Your task to perform on an android device: Open the calendar app, open the side menu, and click the "Day" option Image 0: 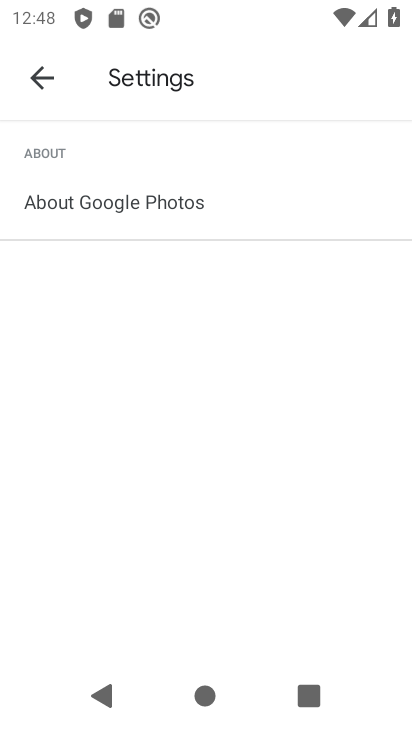
Step 0: press home button
Your task to perform on an android device: Open the calendar app, open the side menu, and click the "Day" option Image 1: 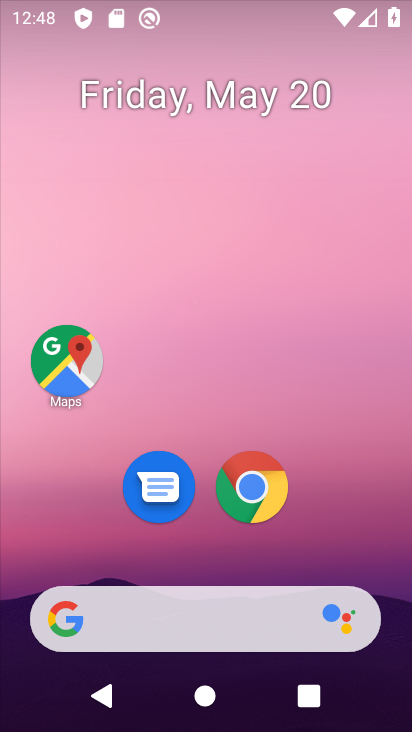
Step 1: drag from (335, 501) to (318, 147)
Your task to perform on an android device: Open the calendar app, open the side menu, and click the "Day" option Image 2: 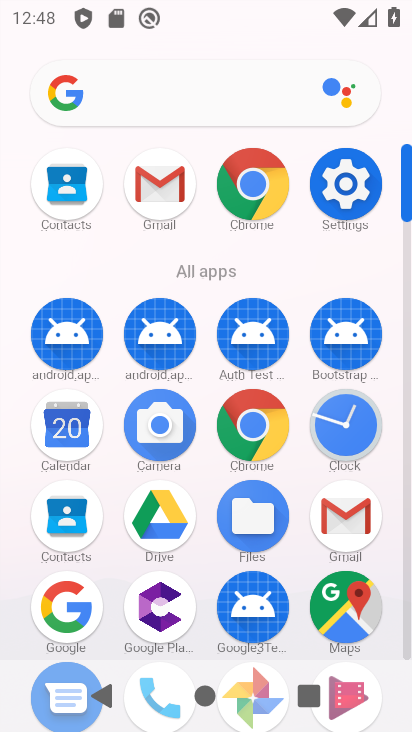
Step 2: click (81, 418)
Your task to perform on an android device: Open the calendar app, open the side menu, and click the "Day" option Image 3: 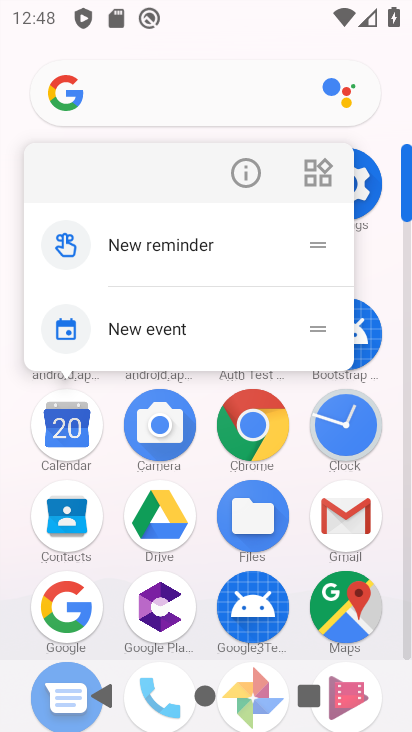
Step 3: click (80, 423)
Your task to perform on an android device: Open the calendar app, open the side menu, and click the "Day" option Image 4: 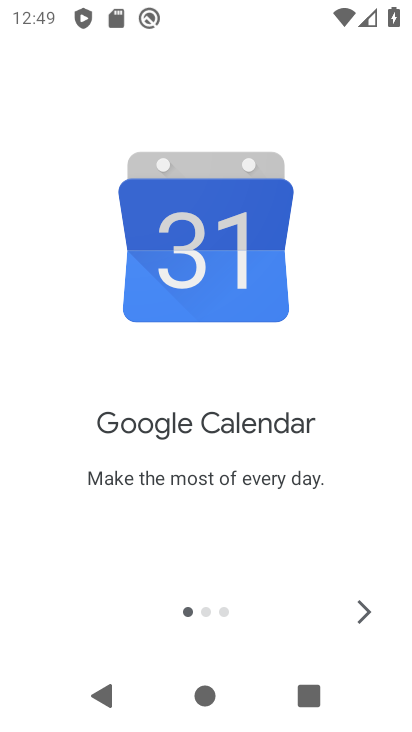
Step 4: click (365, 605)
Your task to perform on an android device: Open the calendar app, open the side menu, and click the "Day" option Image 5: 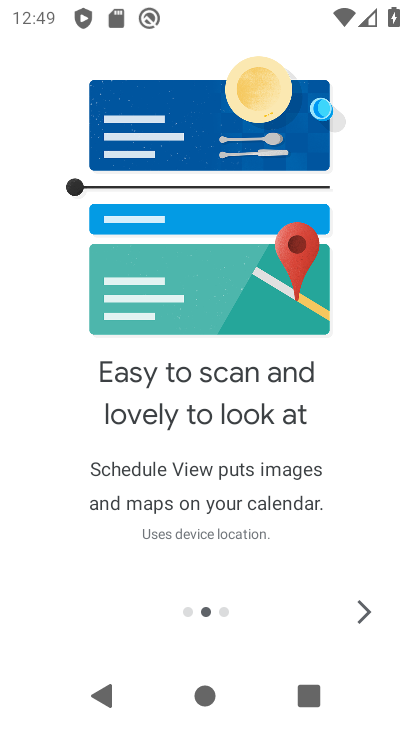
Step 5: click (363, 602)
Your task to perform on an android device: Open the calendar app, open the side menu, and click the "Day" option Image 6: 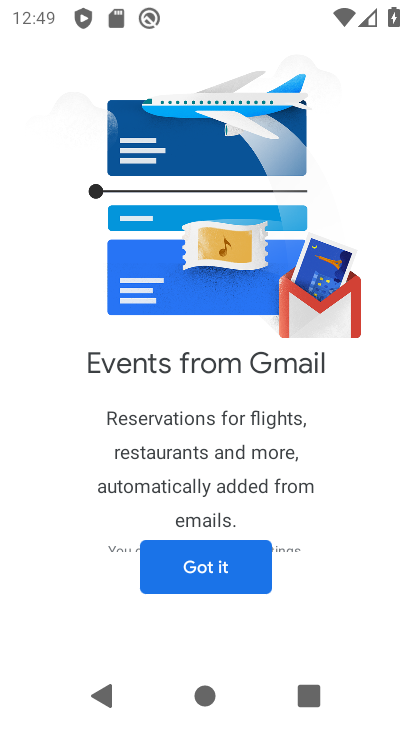
Step 6: click (242, 560)
Your task to perform on an android device: Open the calendar app, open the side menu, and click the "Day" option Image 7: 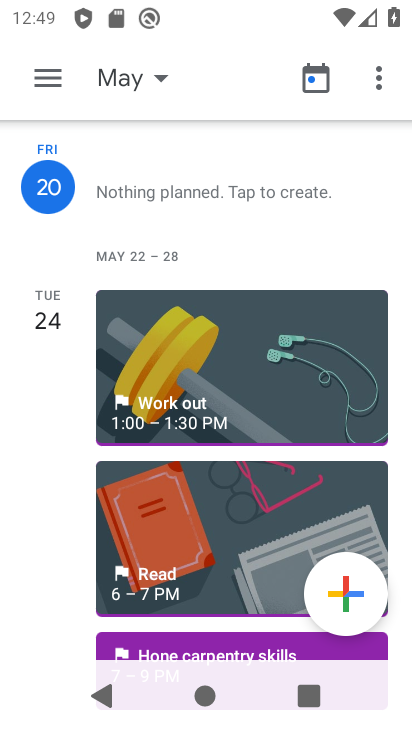
Step 7: click (60, 74)
Your task to perform on an android device: Open the calendar app, open the side menu, and click the "Day" option Image 8: 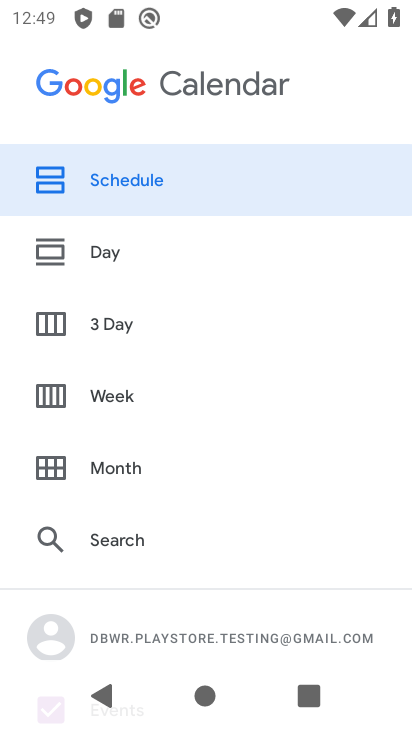
Step 8: click (107, 252)
Your task to perform on an android device: Open the calendar app, open the side menu, and click the "Day" option Image 9: 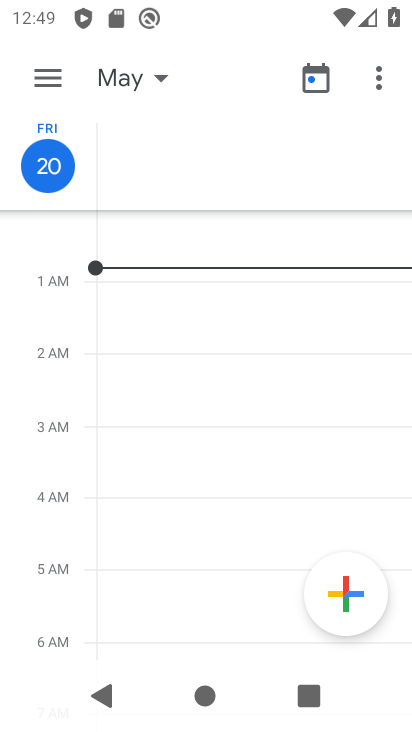
Step 9: task complete